Your task to perform on an android device: star an email in the gmail app Image 0: 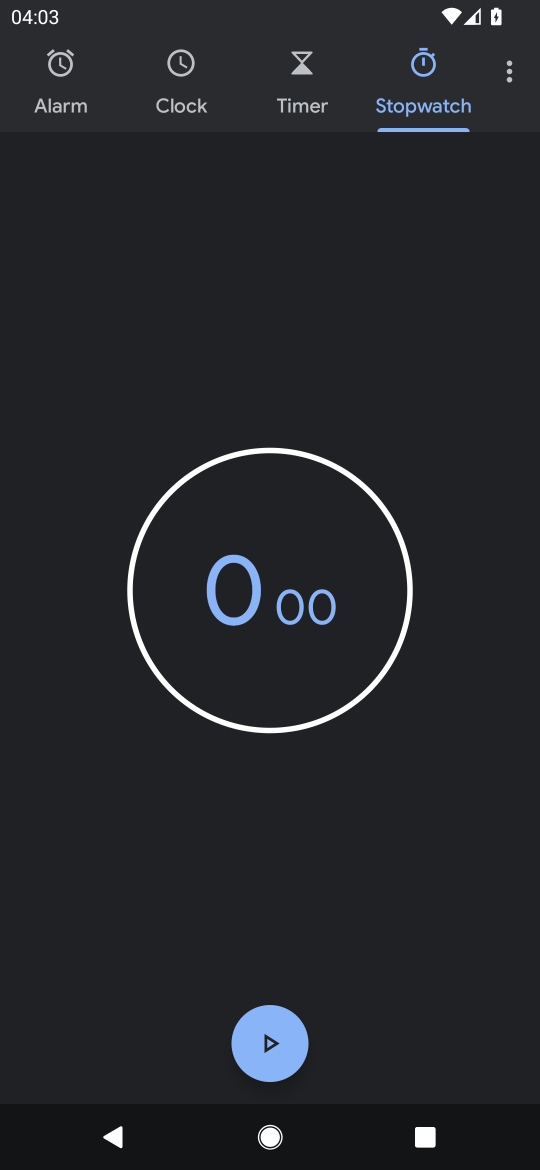
Step 0: press back button
Your task to perform on an android device: star an email in the gmail app Image 1: 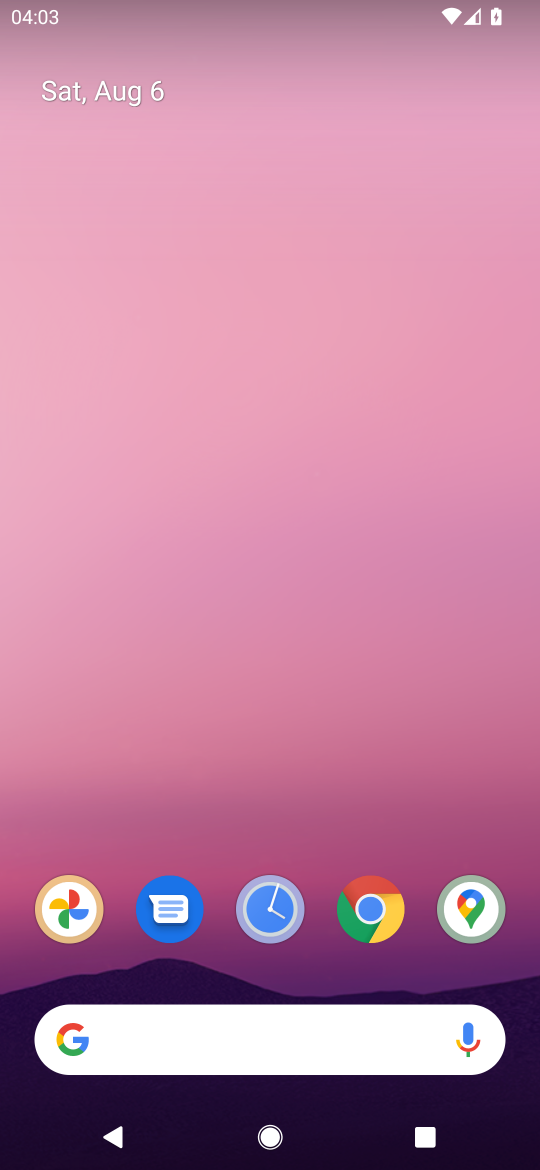
Step 1: drag from (257, 860) to (446, 23)
Your task to perform on an android device: star an email in the gmail app Image 2: 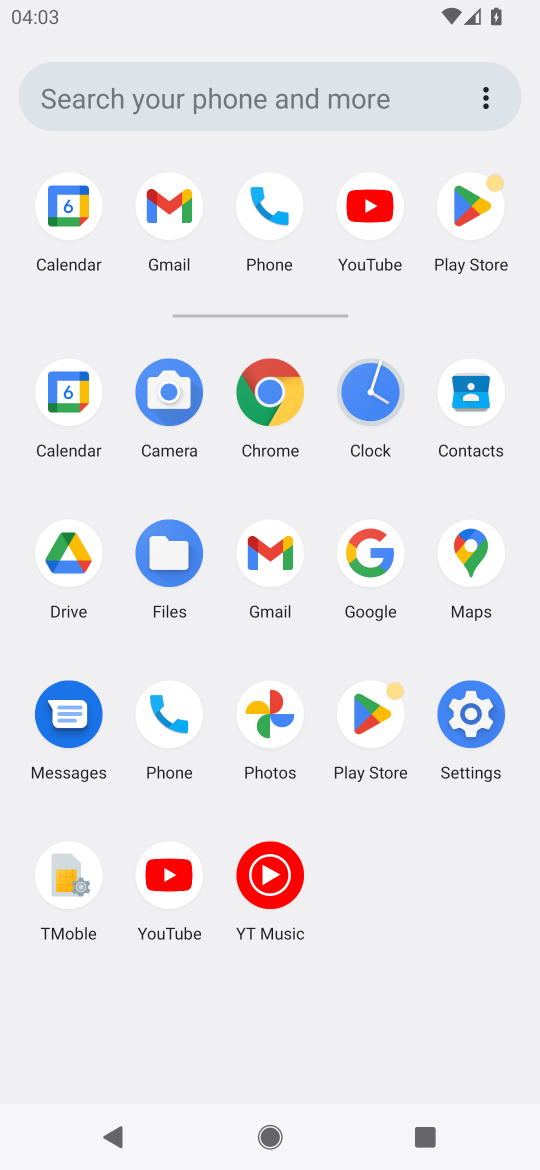
Step 2: click (171, 199)
Your task to perform on an android device: star an email in the gmail app Image 3: 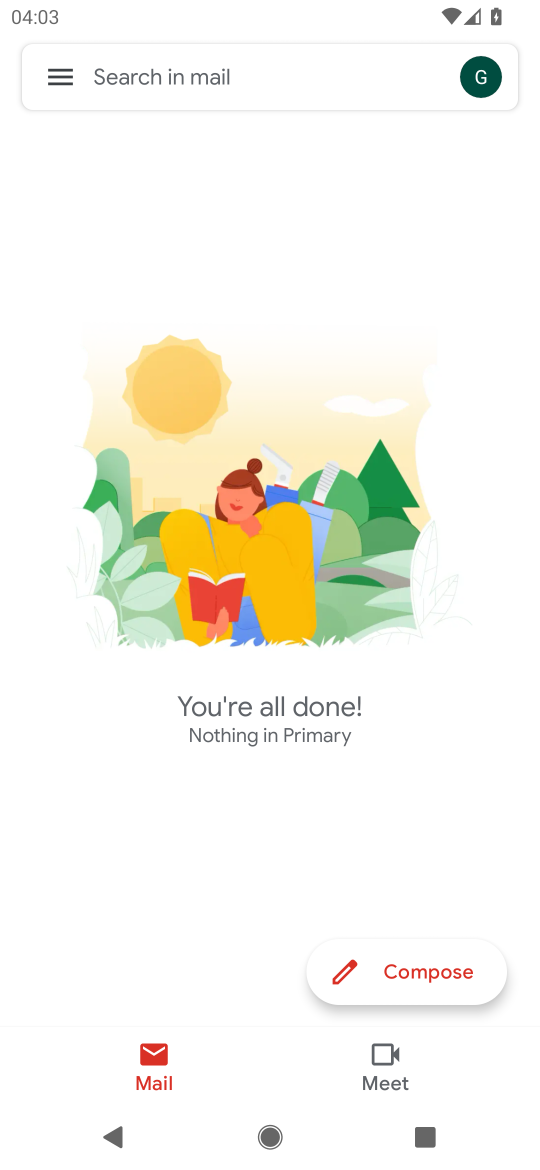
Step 3: click (35, 63)
Your task to perform on an android device: star an email in the gmail app Image 4: 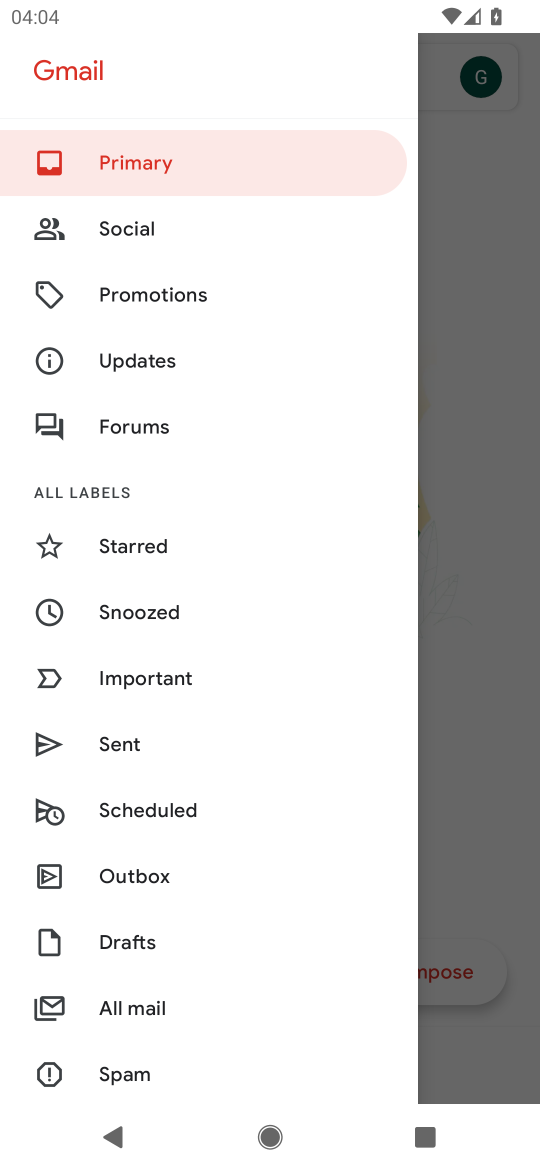
Step 4: click (144, 1002)
Your task to perform on an android device: star an email in the gmail app Image 5: 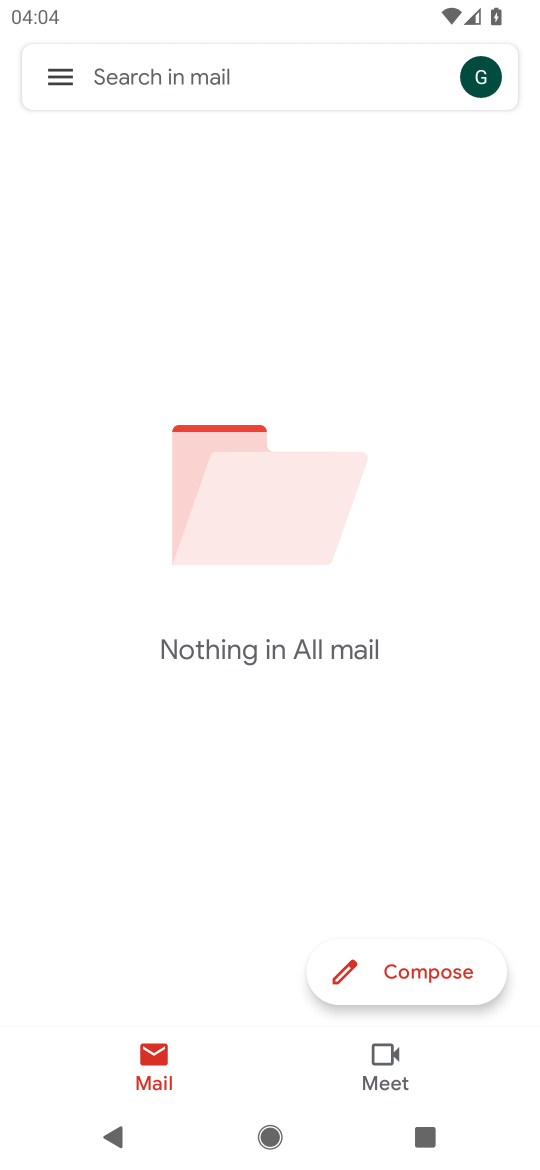
Step 5: task complete